Your task to perform on an android device: toggle sleep mode Image 0: 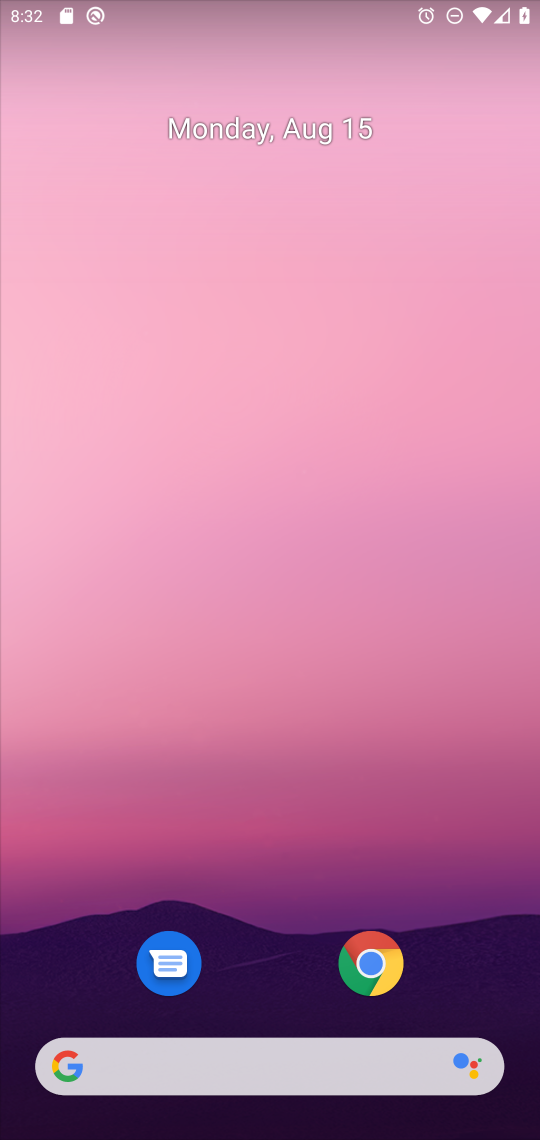
Step 0: drag from (249, 1000) to (518, 51)
Your task to perform on an android device: toggle sleep mode Image 1: 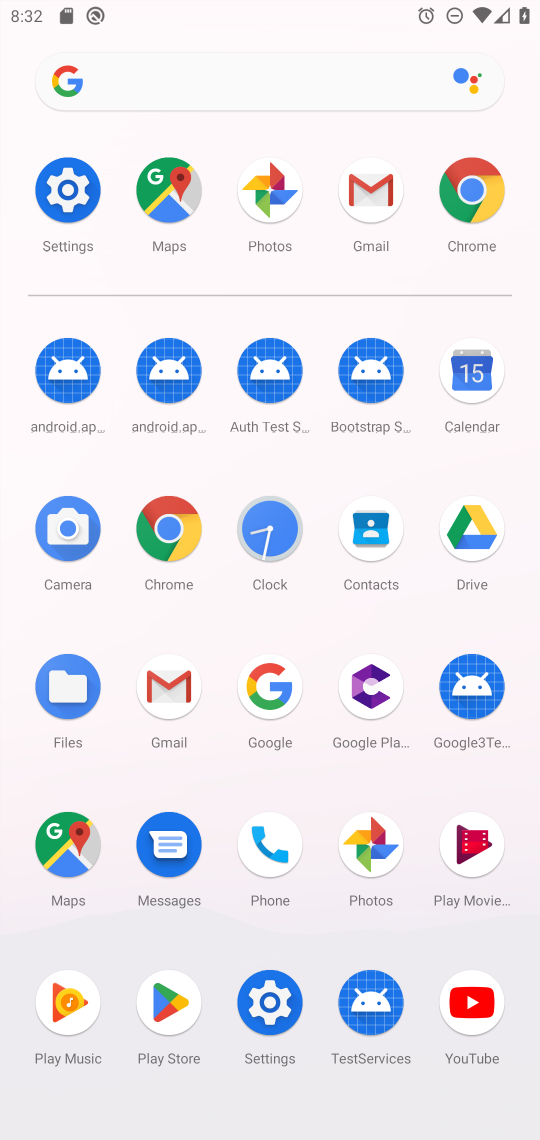
Step 1: click (45, 199)
Your task to perform on an android device: toggle sleep mode Image 2: 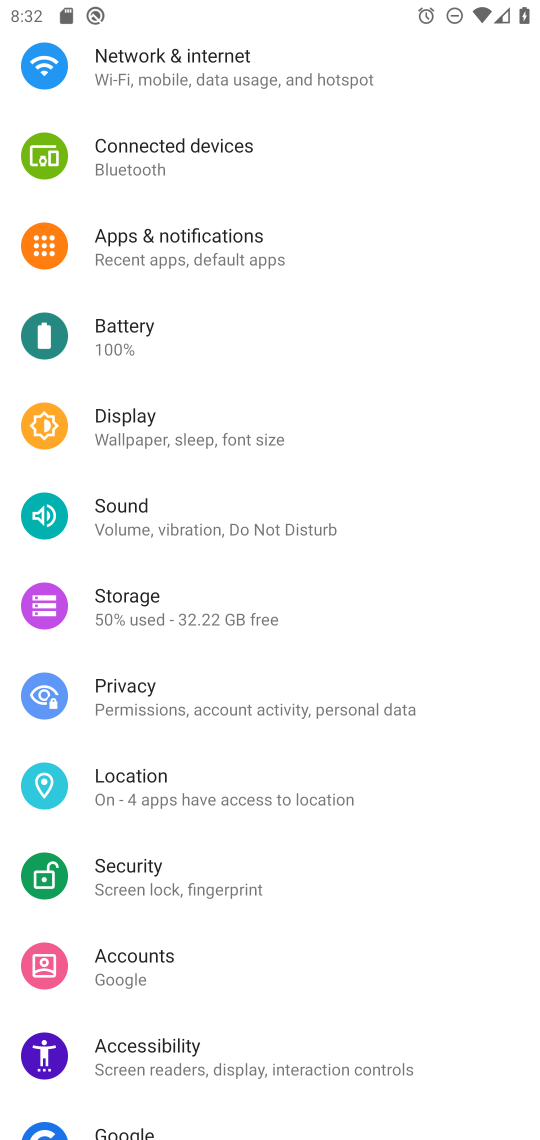
Step 2: task complete